Your task to perform on an android device: turn off translation in the chrome app Image 0: 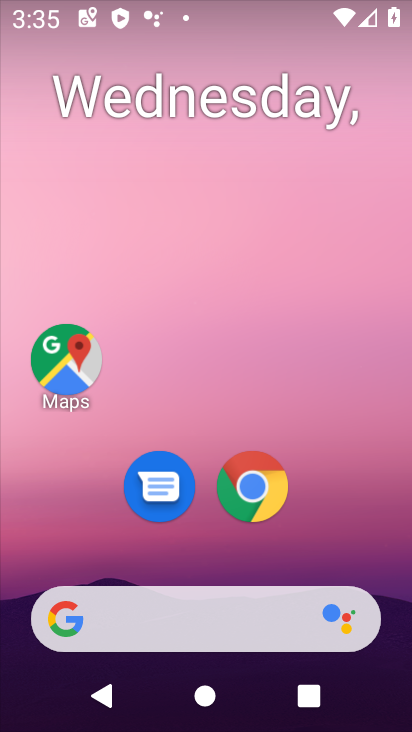
Step 0: click (245, 491)
Your task to perform on an android device: turn off translation in the chrome app Image 1: 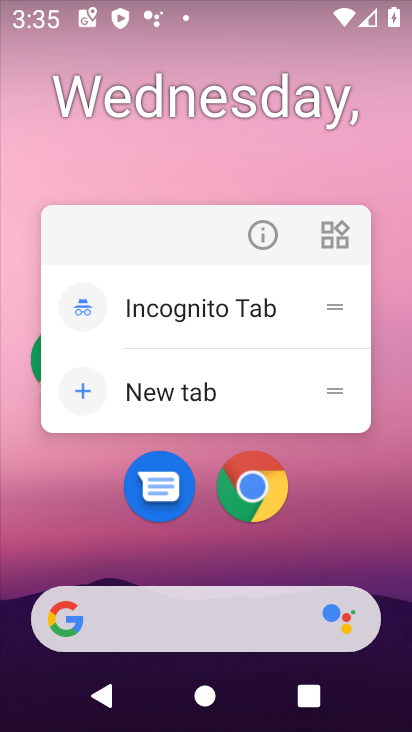
Step 1: click (245, 475)
Your task to perform on an android device: turn off translation in the chrome app Image 2: 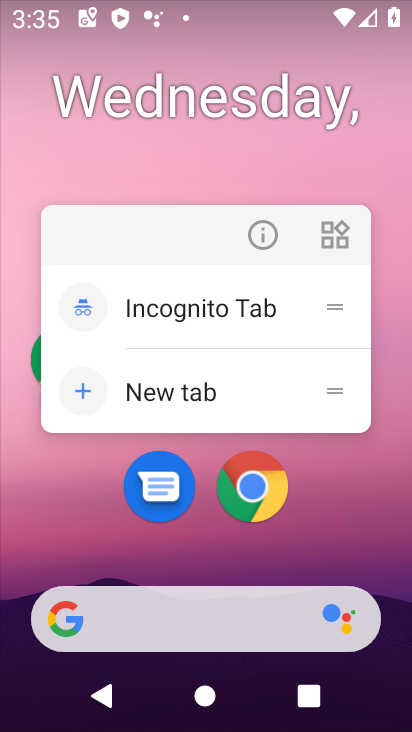
Step 2: click (250, 491)
Your task to perform on an android device: turn off translation in the chrome app Image 3: 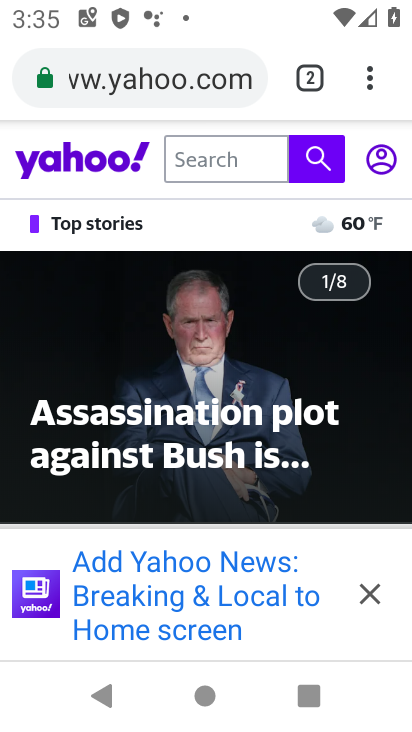
Step 3: click (368, 82)
Your task to perform on an android device: turn off translation in the chrome app Image 4: 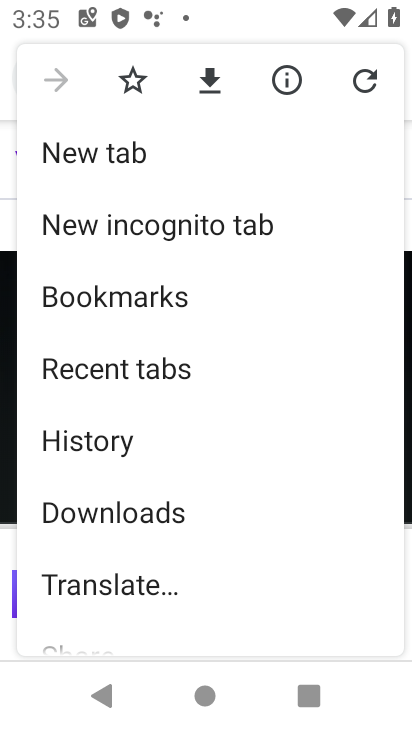
Step 4: drag from (162, 587) to (201, 238)
Your task to perform on an android device: turn off translation in the chrome app Image 5: 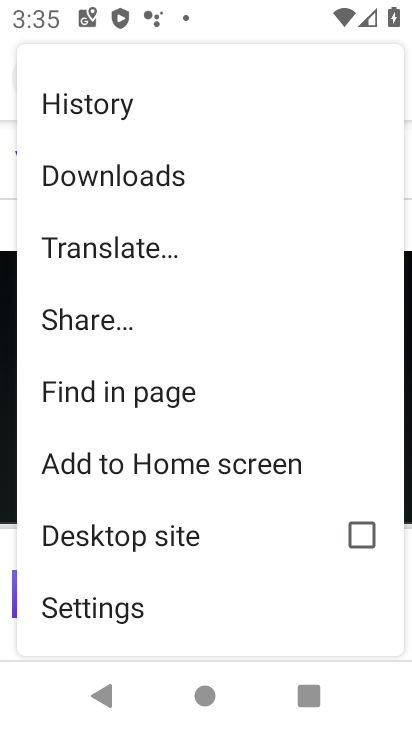
Step 5: drag from (127, 602) to (204, 271)
Your task to perform on an android device: turn off translation in the chrome app Image 6: 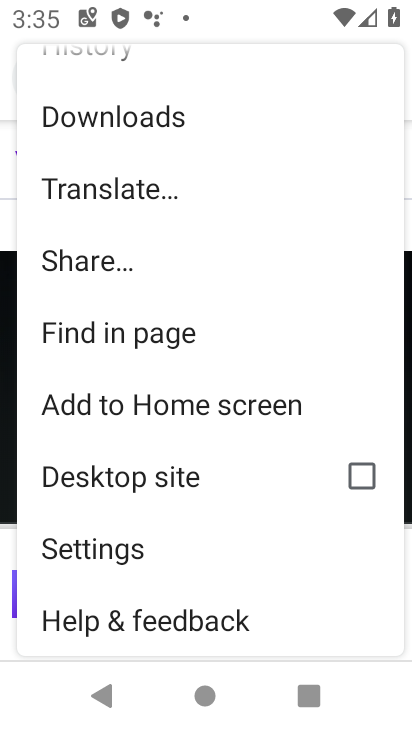
Step 6: click (165, 463)
Your task to perform on an android device: turn off translation in the chrome app Image 7: 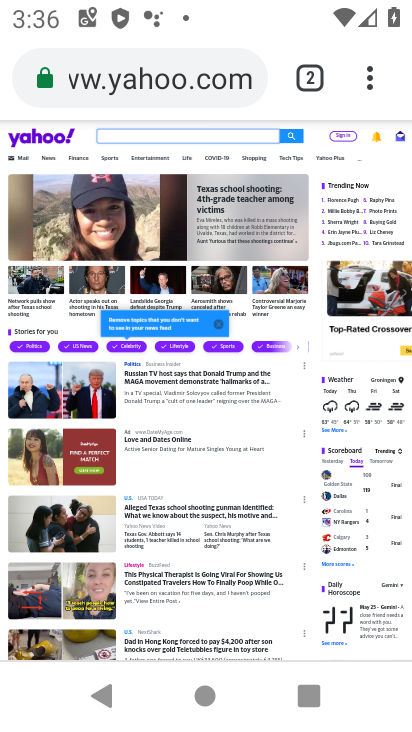
Step 7: click (368, 92)
Your task to perform on an android device: turn off translation in the chrome app Image 8: 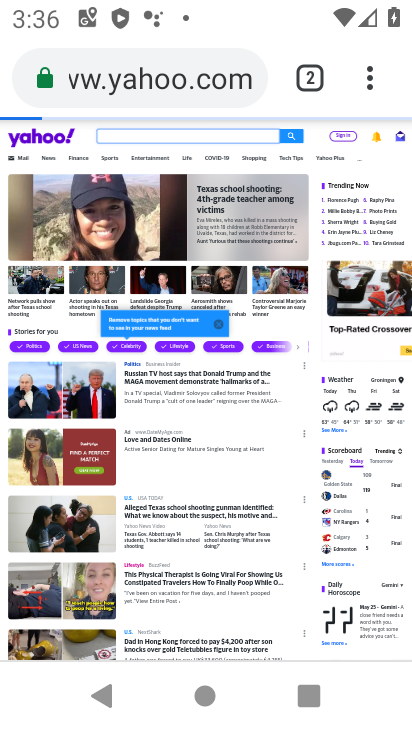
Step 8: click (372, 75)
Your task to perform on an android device: turn off translation in the chrome app Image 9: 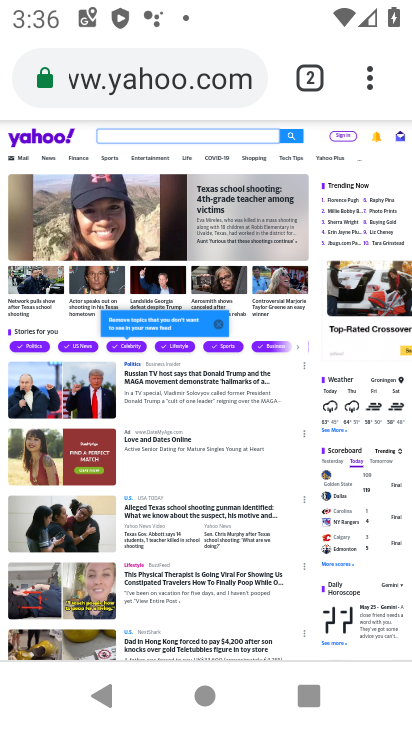
Step 9: click (358, 83)
Your task to perform on an android device: turn off translation in the chrome app Image 10: 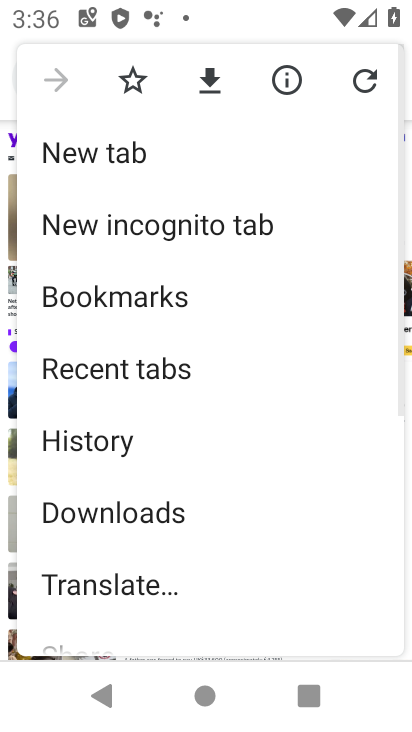
Step 10: drag from (179, 598) to (243, 119)
Your task to perform on an android device: turn off translation in the chrome app Image 11: 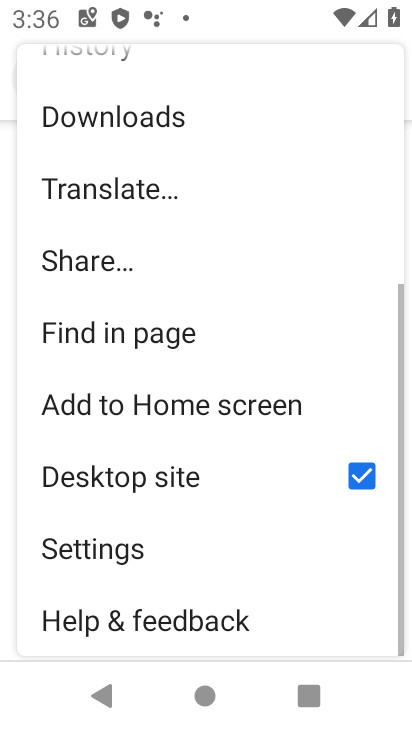
Step 11: click (119, 559)
Your task to perform on an android device: turn off translation in the chrome app Image 12: 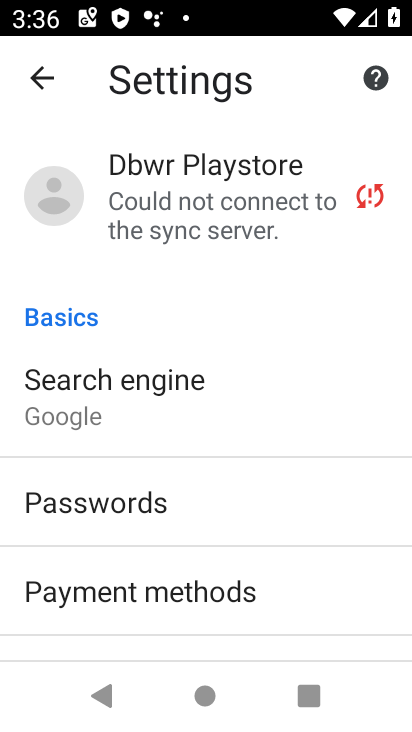
Step 12: drag from (101, 591) to (214, 259)
Your task to perform on an android device: turn off translation in the chrome app Image 13: 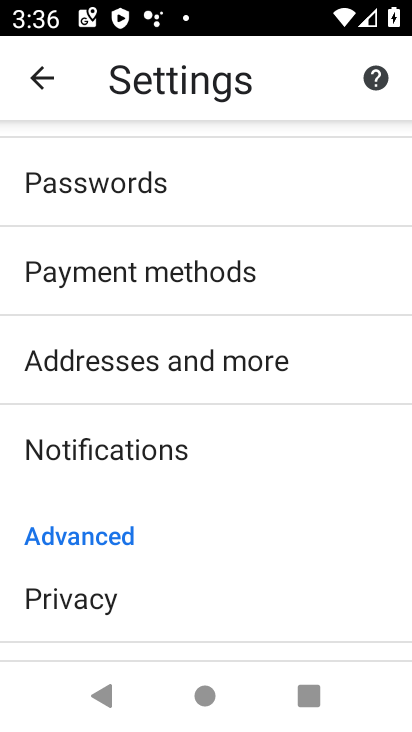
Step 13: drag from (128, 611) to (191, 226)
Your task to perform on an android device: turn off translation in the chrome app Image 14: 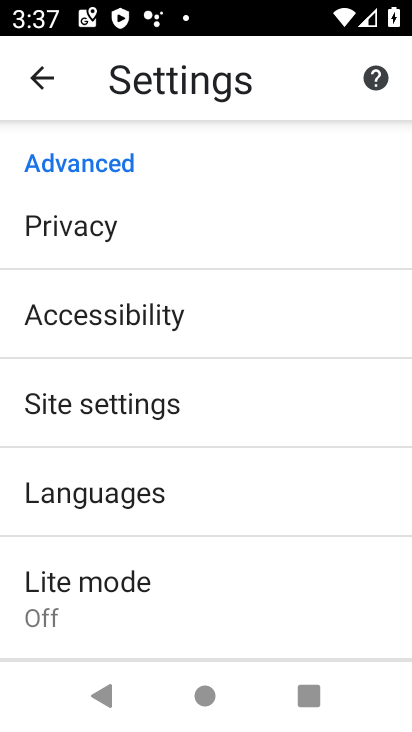
Step 14: click (131, 485)
Your task to perform on an android device: turn off translation in the chrome app Image 15: 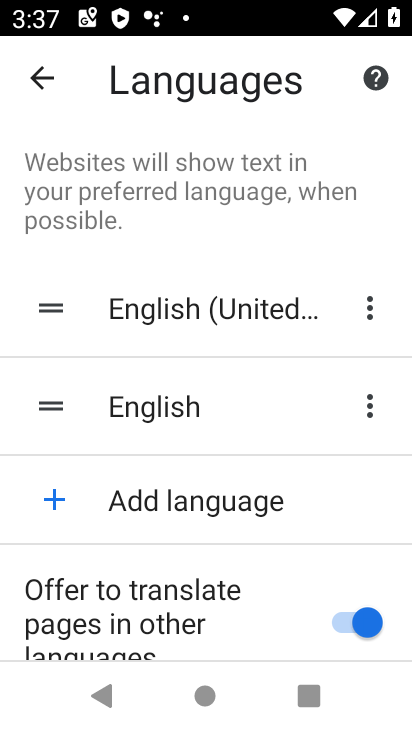
Step 15: click (339, 617)
Your task to perform on an android device: turn off translation in the chrome app Image 16: 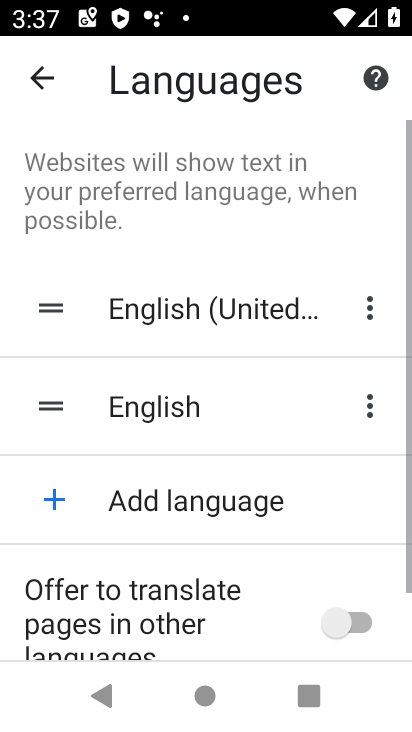
Step 16: task complete